Your task to perform on an android device: uninstall "Google Duo" Image 0: 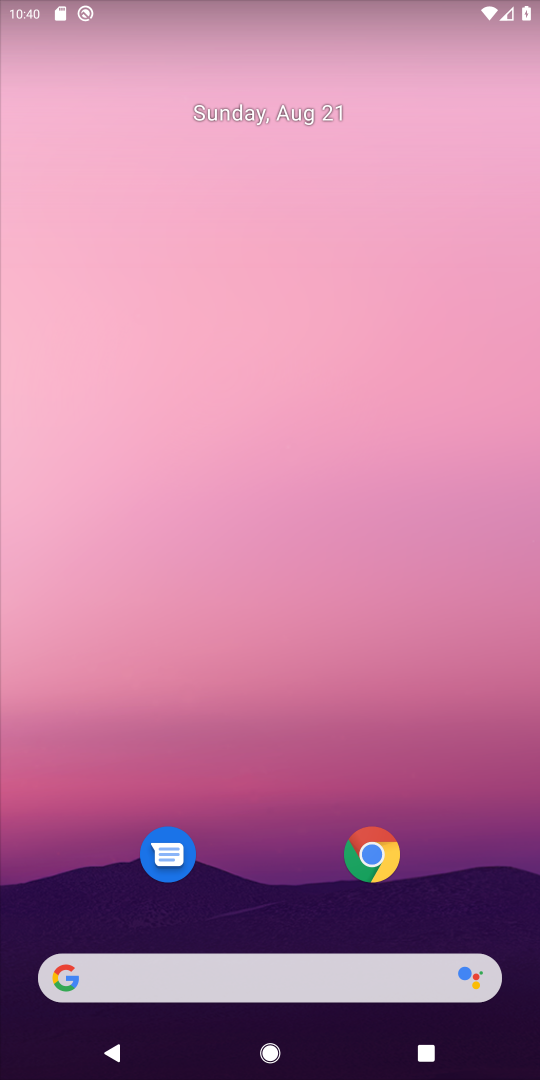
Step 0: drag from (316, 912) to (245, 35)
Your task to perform on an android device: uninstall "Google Duo" Image 1: 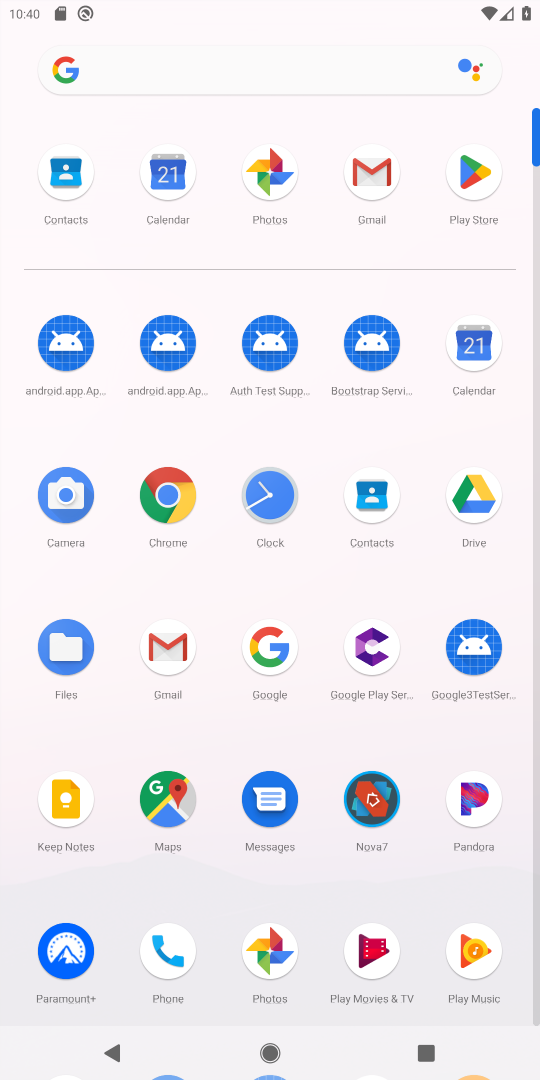
Step 1: task complete